Your task to perform on an android device: turn on wifi Image 0: 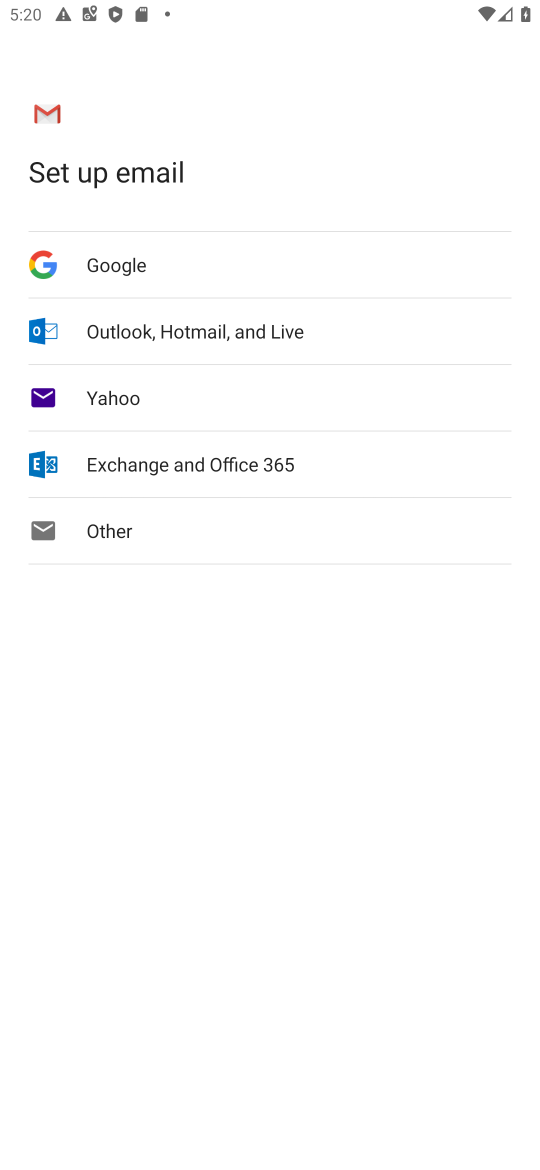
Step 0: press home button
Your task to perform on an android device: turn on wifi Image 1: 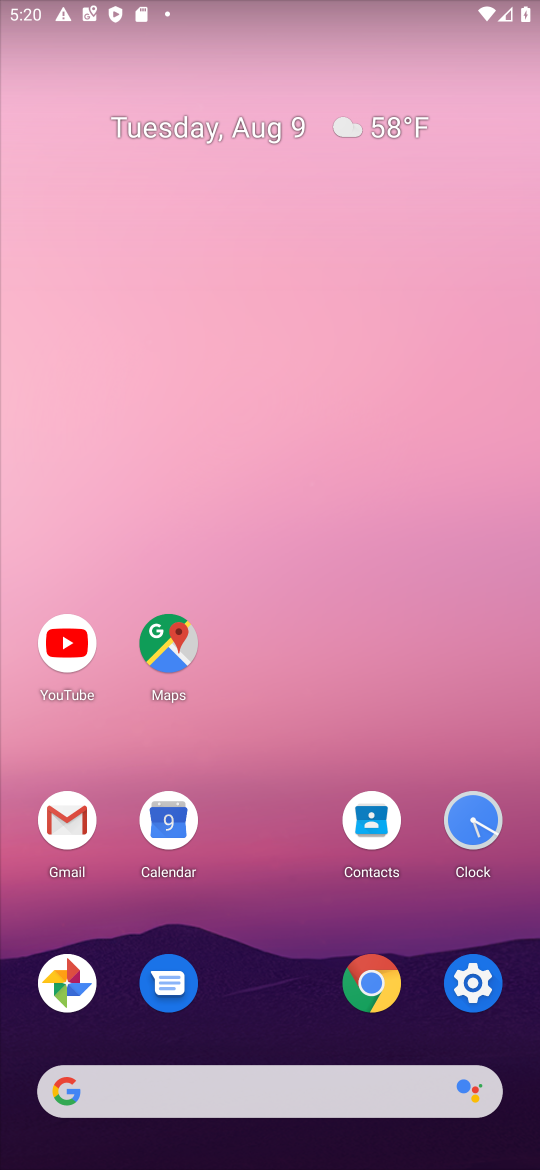
Step 1: click (474, 981)
Your task to perform on an android device: turn on wifi Image 2: 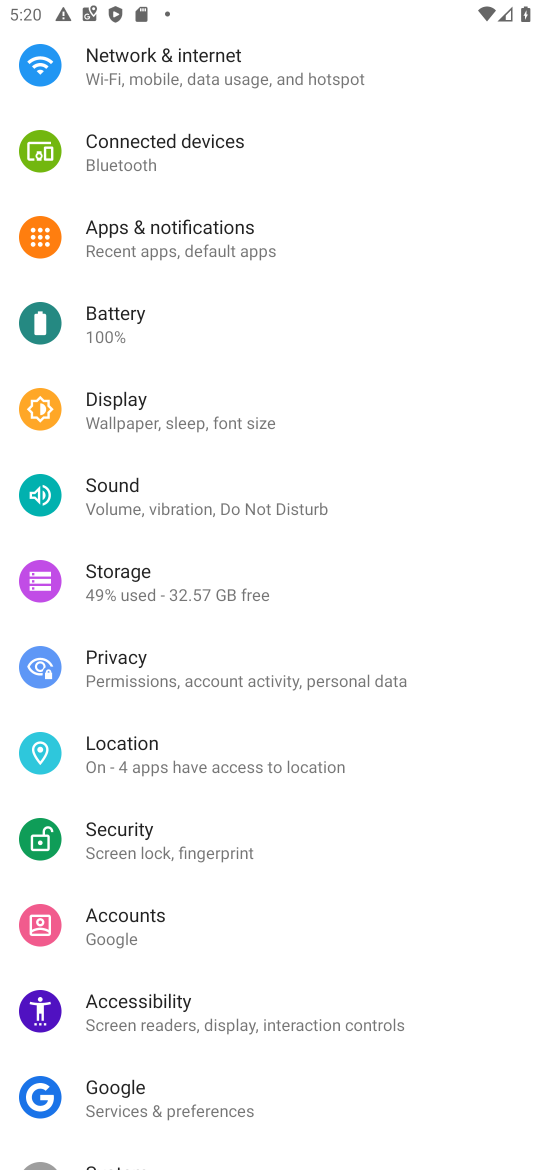
Step 2: click (155, 53)
Your task to perform on an android device: turn on wifi Image 3: 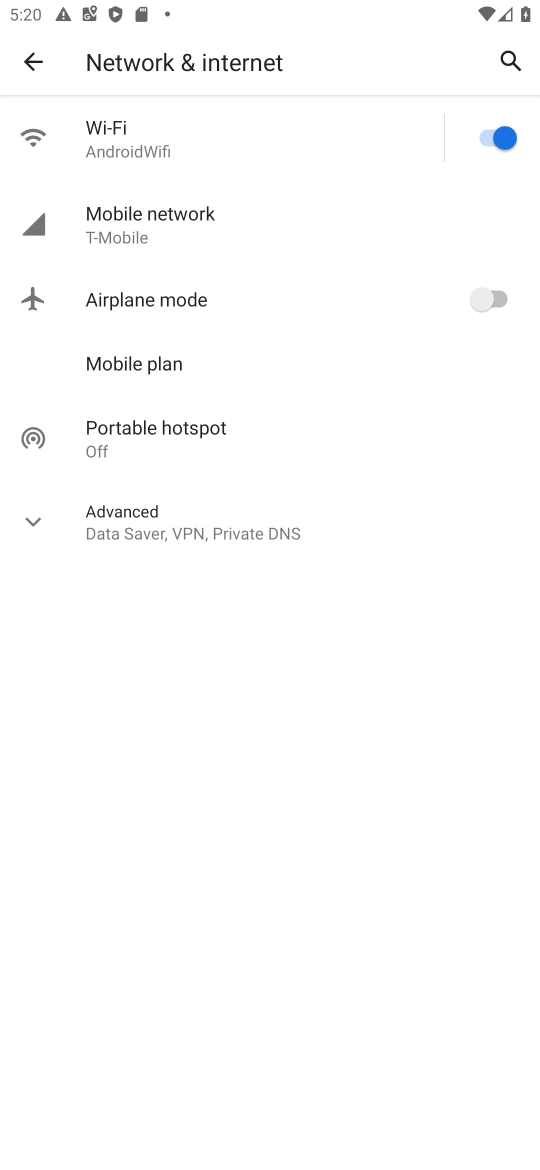
Step 3: task complete